Your task to perform on an android device: check google app version Image 0: 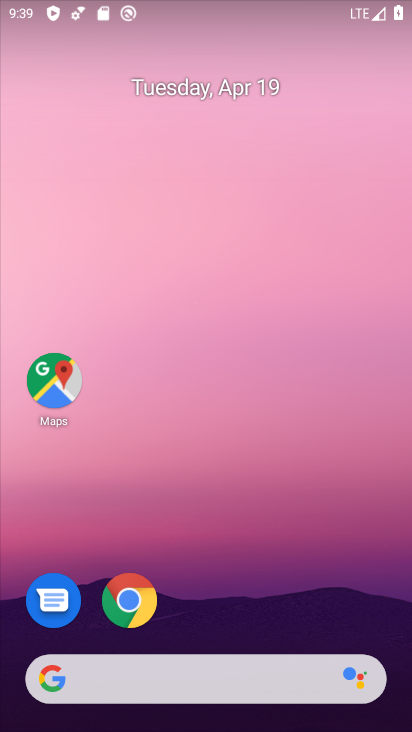
Step 0: drag from (369, 596) to (339, 200)
Your task to perform on an android device: check google app version Image 1: 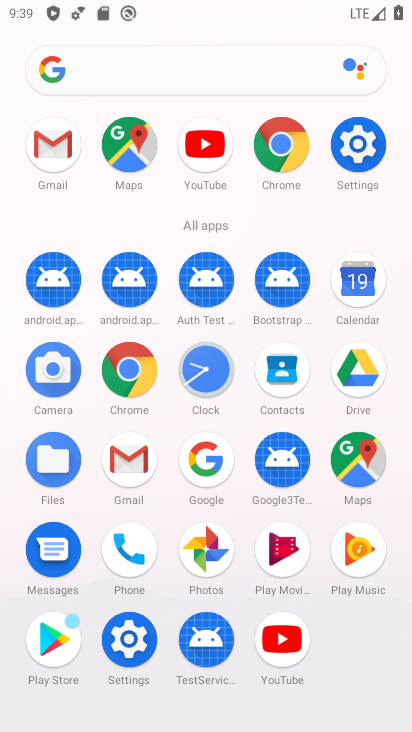
Step 1: click (296, 170)
Your task to perform on an android device: check google app version Image 2: 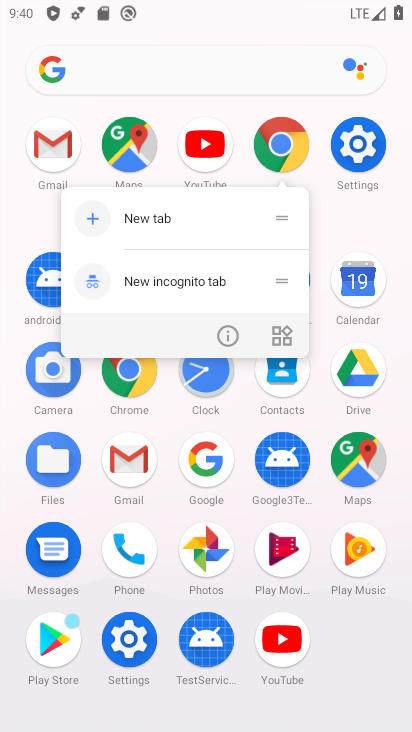
Step 2: click (227, 334)
Your task to perform on an android device: check google app version Image 3: 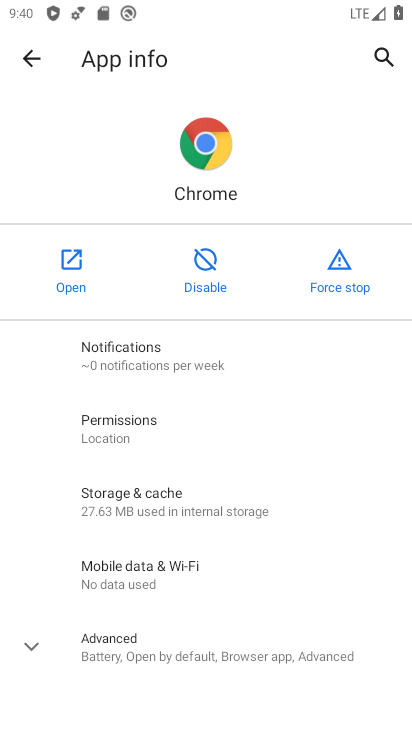
Step 3: click (296, 643)
Your task to perform on an android device: check google app version Image 4: 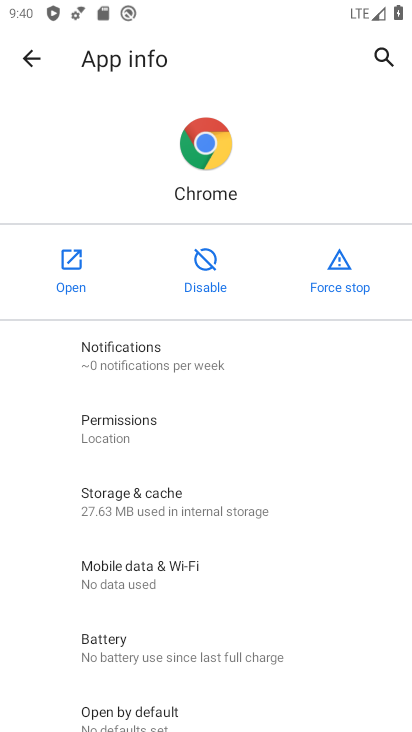
Step 4: task complete